Your task to perform on an android device: Add logitech g933 to the cart on target, then select checkout. Image 0: 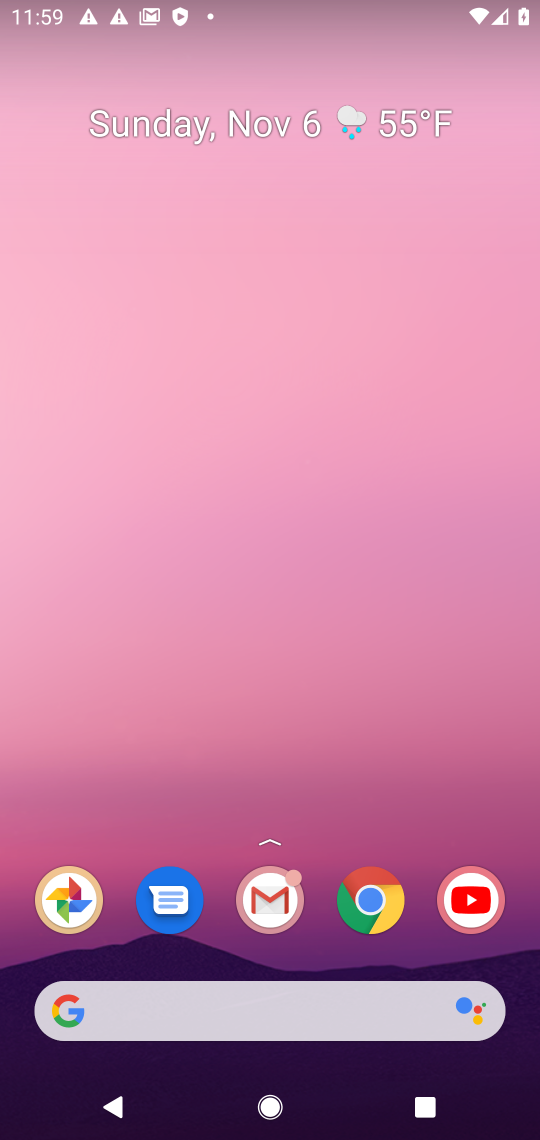
Step 0: click (244, 1000)
Your task to perform on an android device: Add logitech g933 to the cart on target, then select checkout. Image 1: 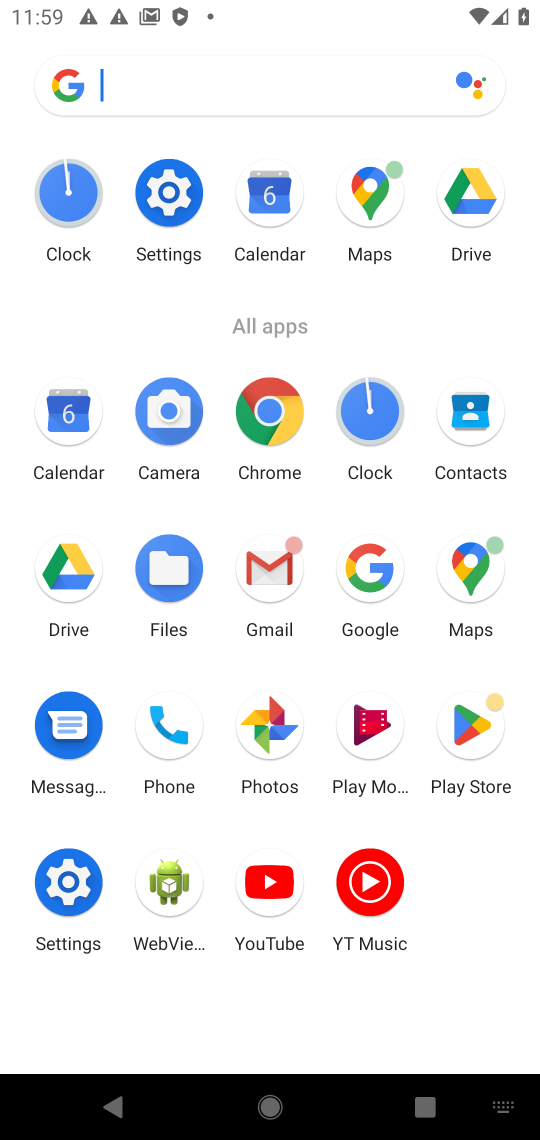
Step 1: type "target"
Your task to perform on an android device: Add logitech g933 to the cart on target, then select checkout. Image 2: 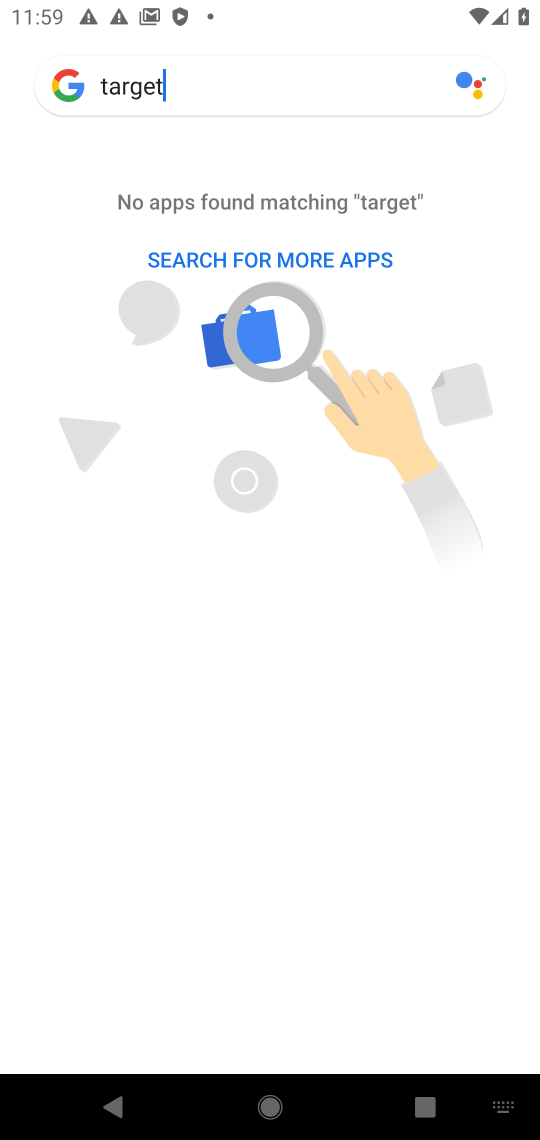
Step 2: task complete